Your task to perform on an android device: toggle sleep mode Image 0: 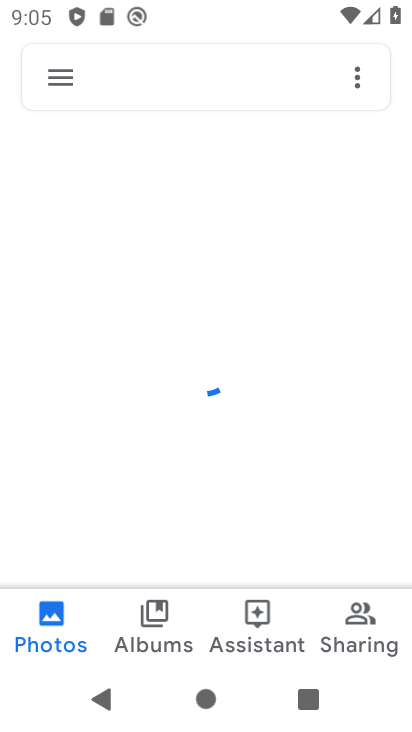
Step 0: press home button
Your task to perform on an android device: toggle sleep mode Image 1: 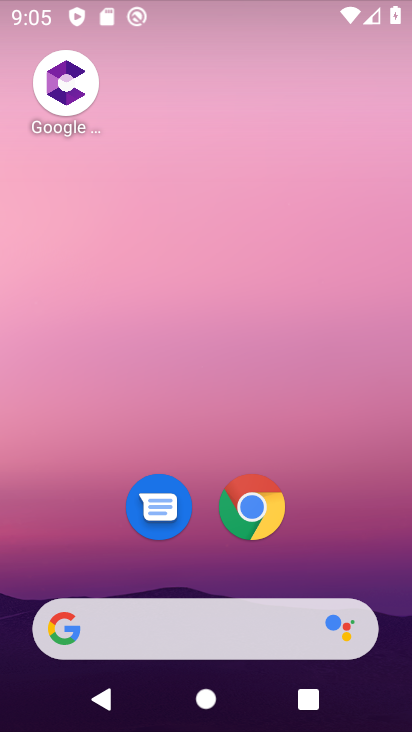
Step 1: drag from (347, 477) to (262, 150)
Your task to perform on an android device: toggle sleep mode Image 2: 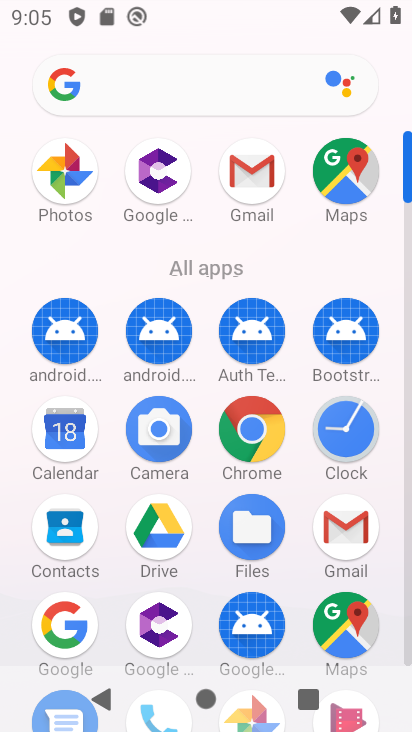
Step 2: drag from (206, 662) to (207, 149)
Your task to perform on an android device: toggle sleep mode Image 3: 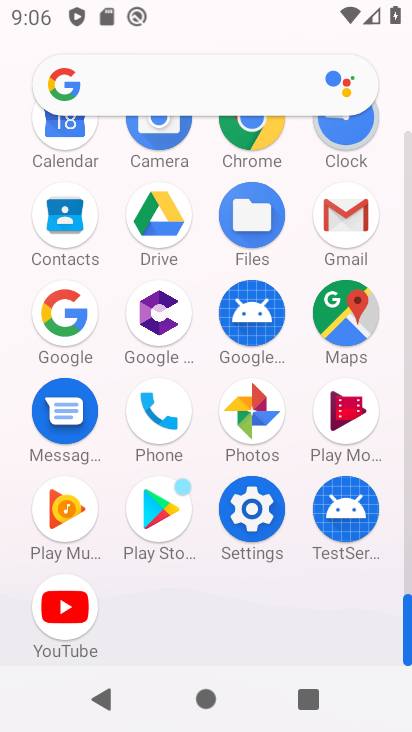
Step 3: click (241, 507)
Your task to perform on an android device: toggle sleep mode Image 4: 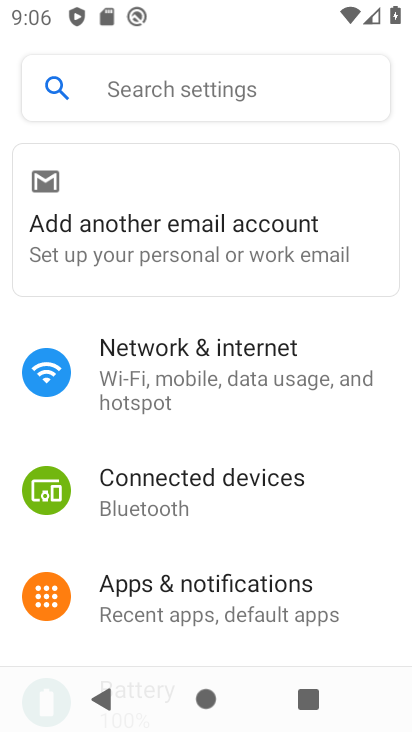
Step 4: drag from (238, 504) to (201, 145)
Your task to perform on an android device: toggle sleep mode Image 5: 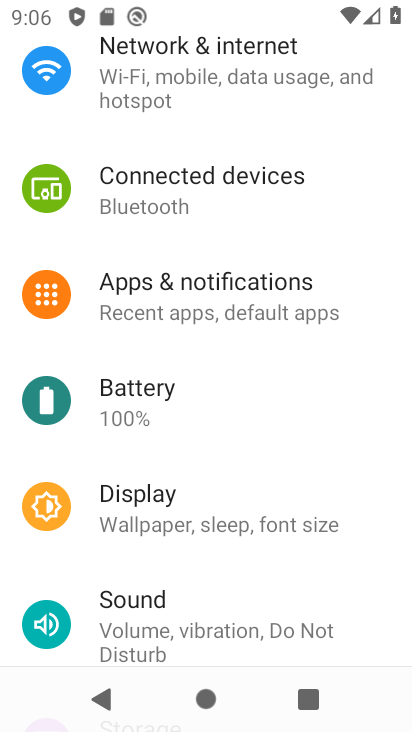
Step 5: drag from (218, 557) to (155, 377)
Your task to perform on an android device: toggle sleep mode Image 6: 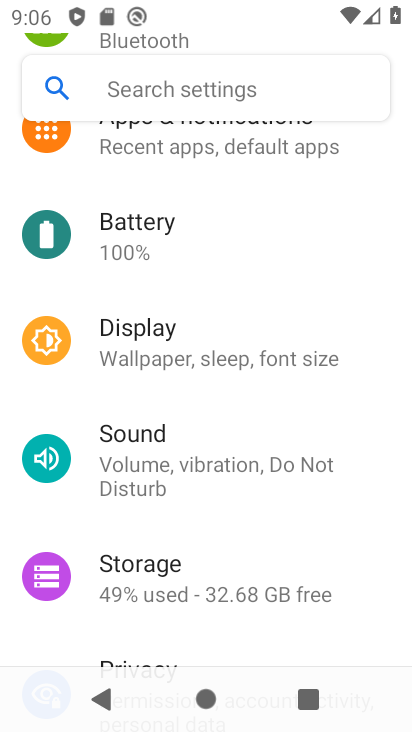
Step 6: click (153, 341)
Your task to perform on an android device: toggle sleep mode Image 7: 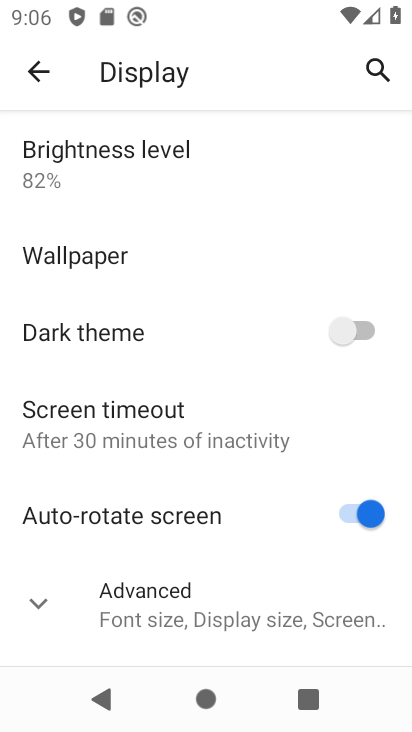
Step 7: click (128, 435)
Your task to perform on an android device: toggle sleep mode Image 8: 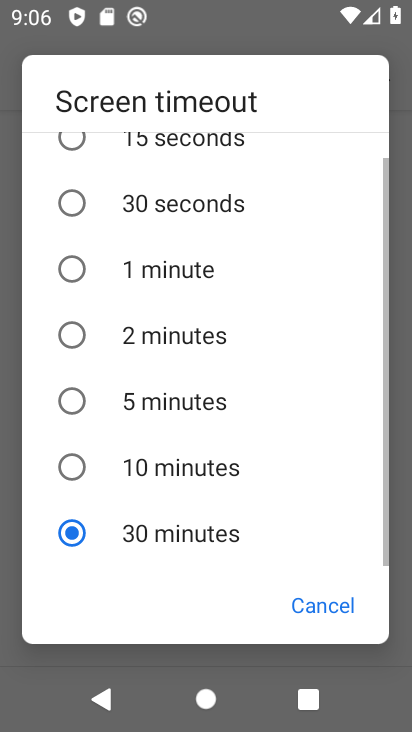
Step 8: click (153, 471)
Your task to perform on an android device: toggle sleep mode Image 9: 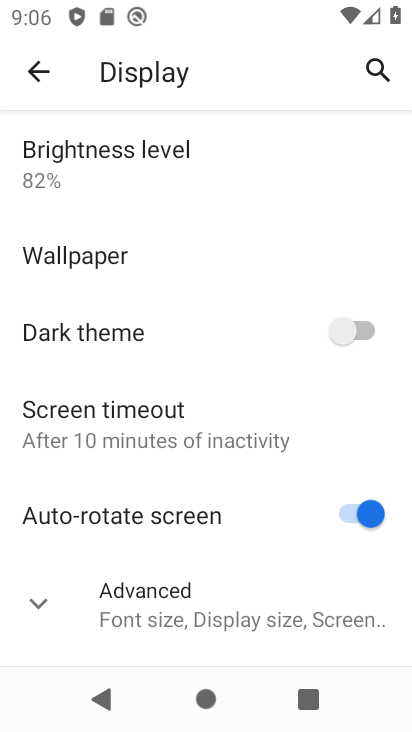
Step 9: task complete